Your task to perform on an android device: Empty the shopping cart on walmart.com. Image 0: 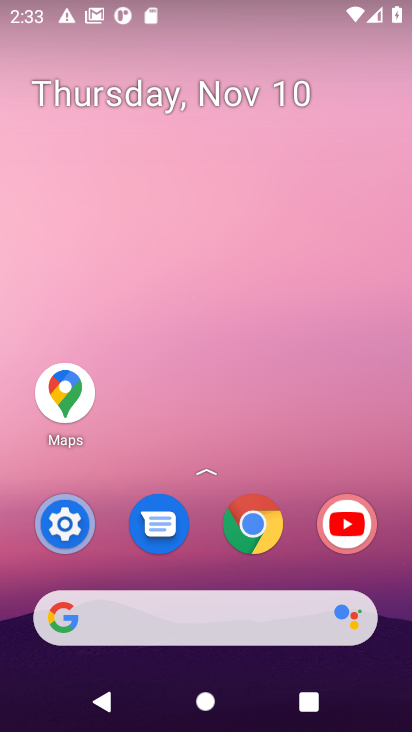
Step 0: click (263, 534)
Your task to perform on an android device: Empty the shopping cart on walmart.com. Image 1: 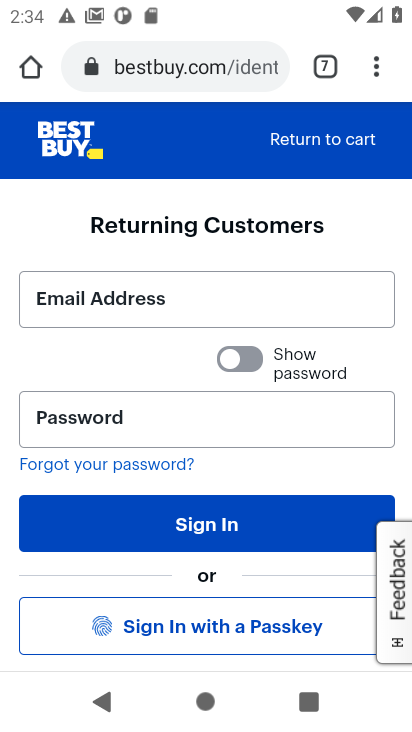
Step 1: click (327, 68)
Your task to perform on an android device: Empty the shopping cart on walmart.com. Image 2: 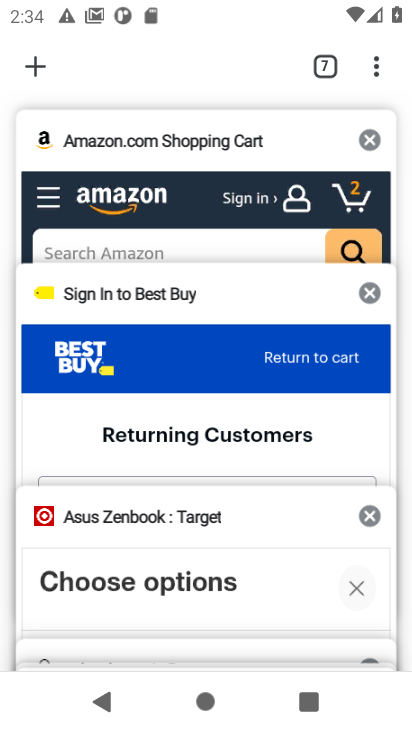
Step 2: drag from (120, 664) to (148, 396)
Your task to perform on an android device: Empty the shopping cart on walmart.com. Image 3: 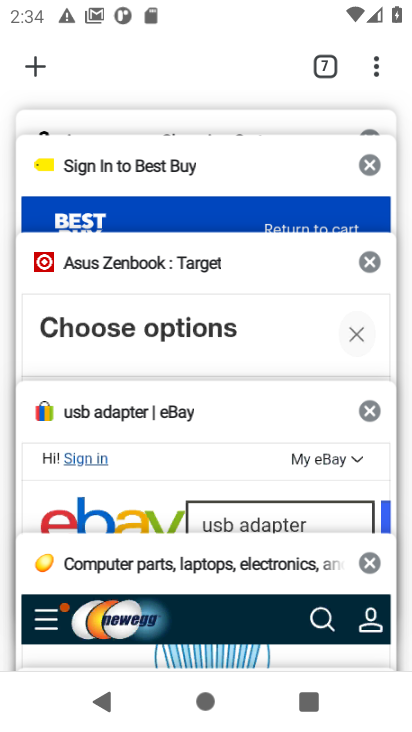
Step 3: drag from (158, 597) to (178, 408)
Your task to perform on an android device: Empty the shopping cart on walmart.com. Image 4: 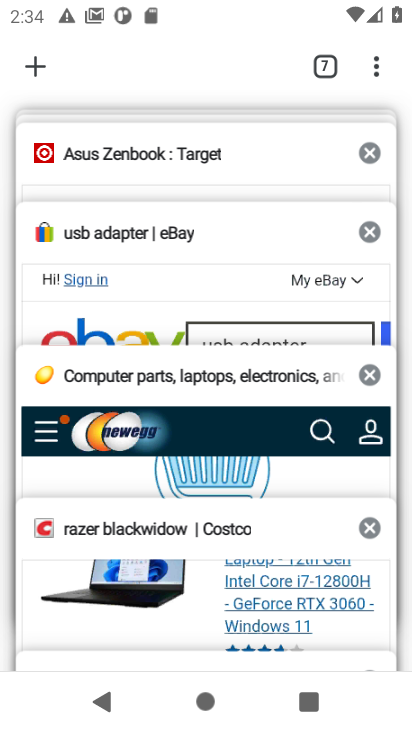
Step 4: drag from (138, 608) to (158, 543)
Your task to perform on an android device: Empty the shopping cart on walmart.com. Image 5: 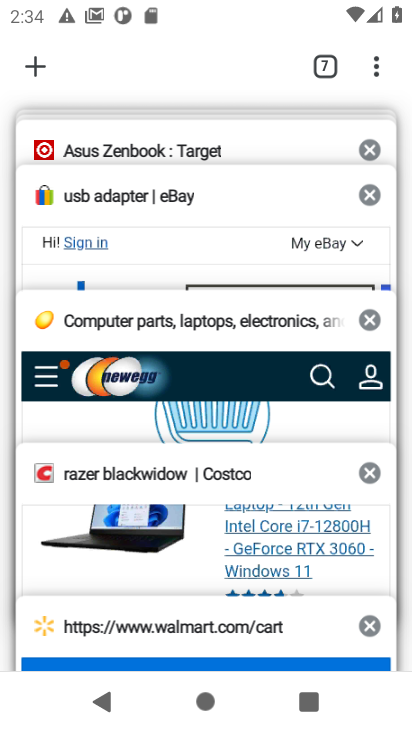
Step 5: click (154, 635)
Your task to perform on an android device: Empty the shopping cart on walmart.com. Image 6: 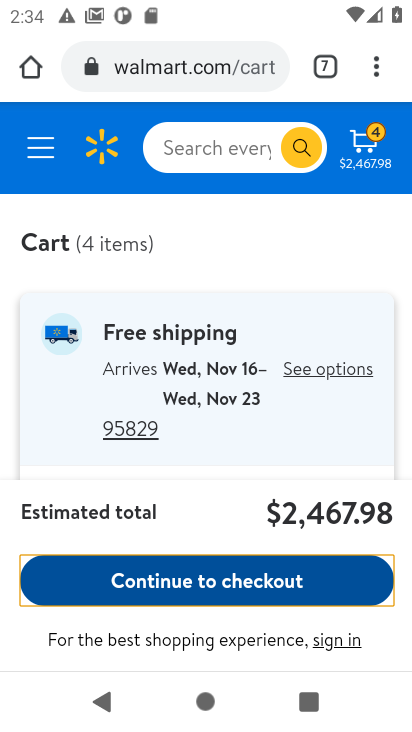
Step 6: drag from (257, 477) to (309, 243)
Your task to perform on an android device: Empty the shopping cart on walmart.com. Image 7: 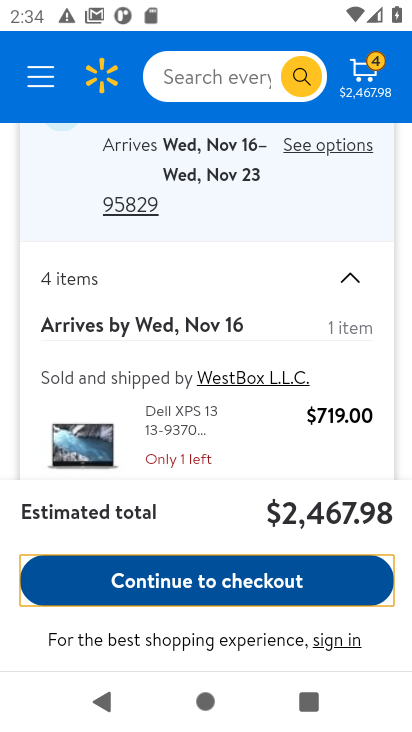
Step 7: drag from (242, 504) to (270, 269)
Your task to perform on an android device: Empty the shopping cart on walmart.com. Image 8: 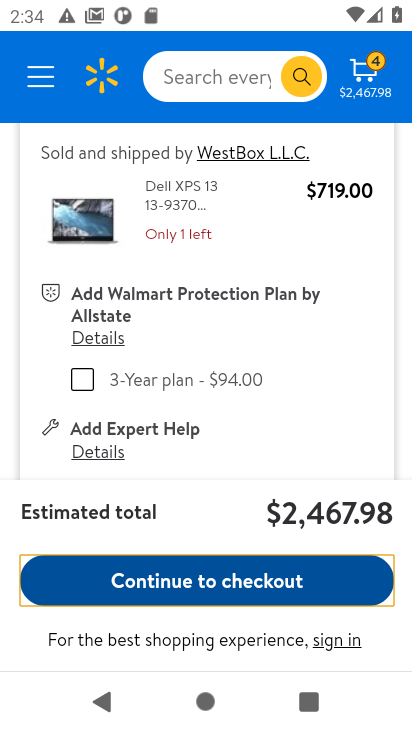
Step 8: click (185, 151)
Your task to perform on an android device: Empty the shopping cart on walmart.com. Image 9: 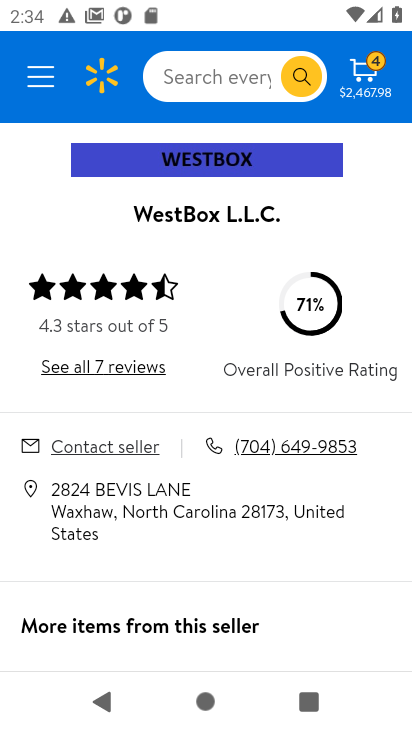
Step 9: click (364, 78)
Your task to perform on an android device: Empty the shopping cart on walmart.com. Image 10: 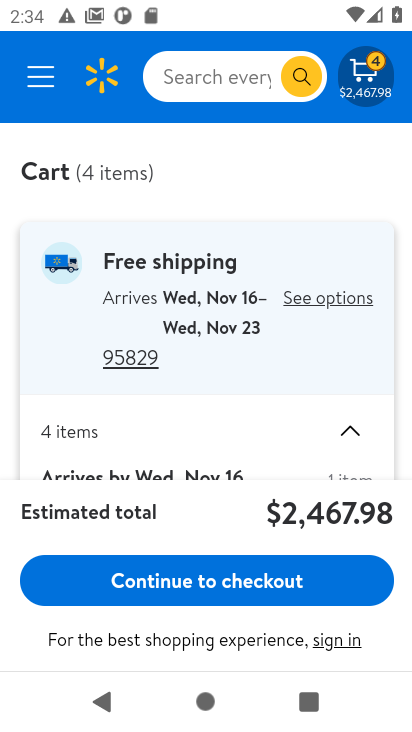
Step 10: drag from (203, 450) to (249, 291)
Your task to perform on an android device: Empty the shopping cart on walmart.com. Image 11: 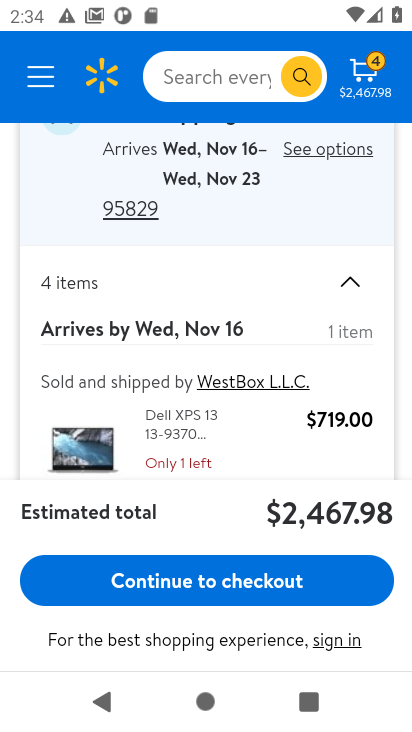
Step 11: drag from (131, 461) to (150, 174)
Your task to perform on an android device: Empty the shopping cart on walmart.com. Image 12: 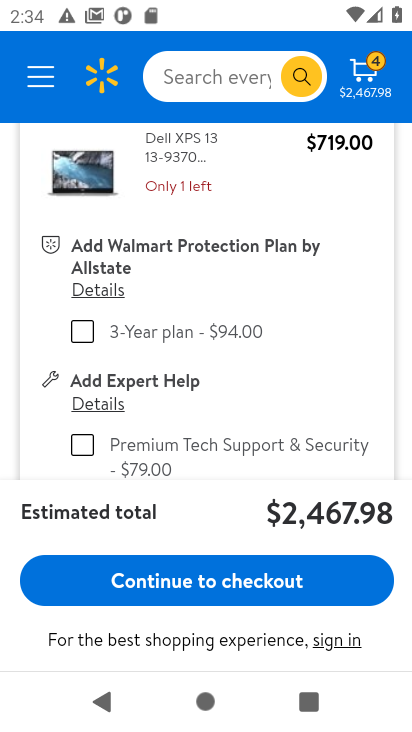
Step 12: drag from (271, 372) to (274, 212)
Your task to perform on an android device: Empty the shopping cart on walmart.com. Image 13: 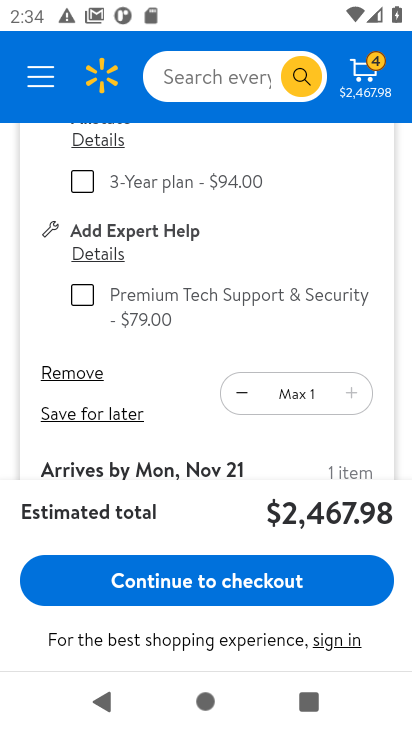
Step 13: click (77, 373)
Your task to perform on an android device: Empty the shopping cart on walmart.com. Image 14: 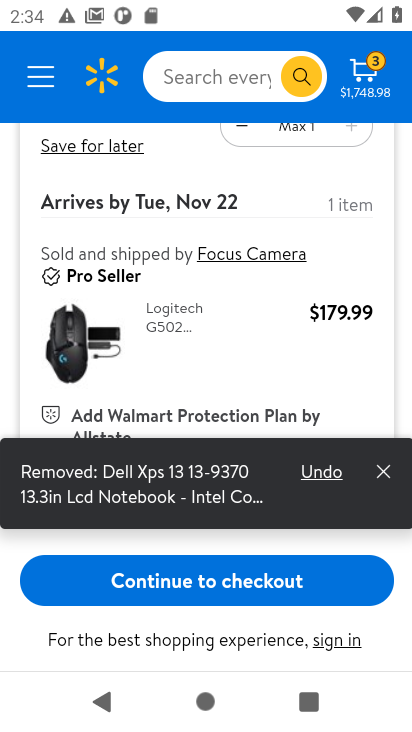
Step 14: drag from (258, 369) to (267, 234)
Your task to perform on an android device: Empty the shopping cart on walmart.com. Image 15: 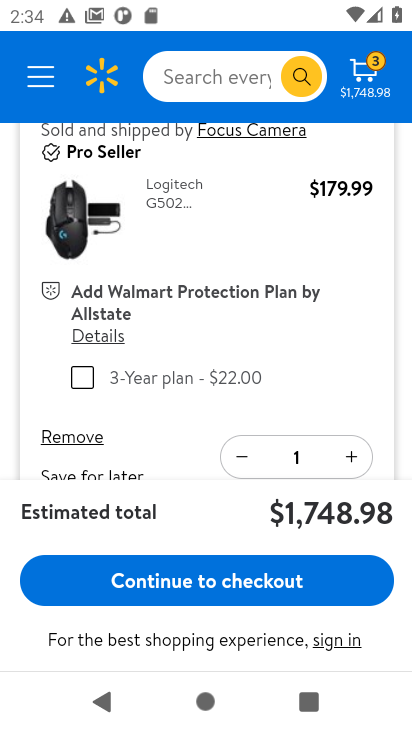
Step 15: click (86, 438)
Your task to perform on an android device: Empty the shopping cart on walmart.com. Image 16: 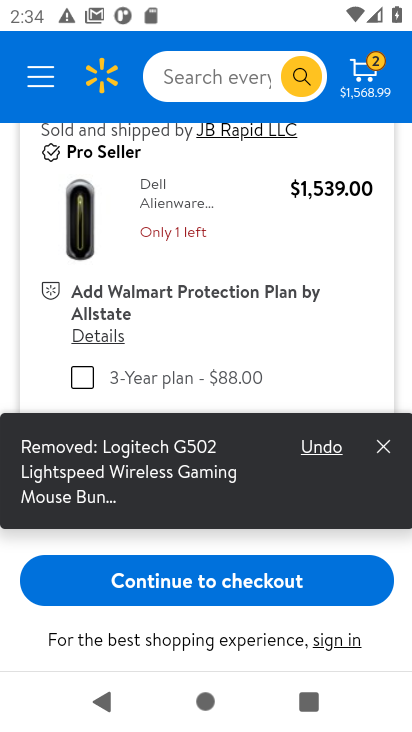
Step 16: drag from (312, 356) to (337, 213)
Your task to perform on an android device: Empty the shopping cart on walmart.com. Image 17: 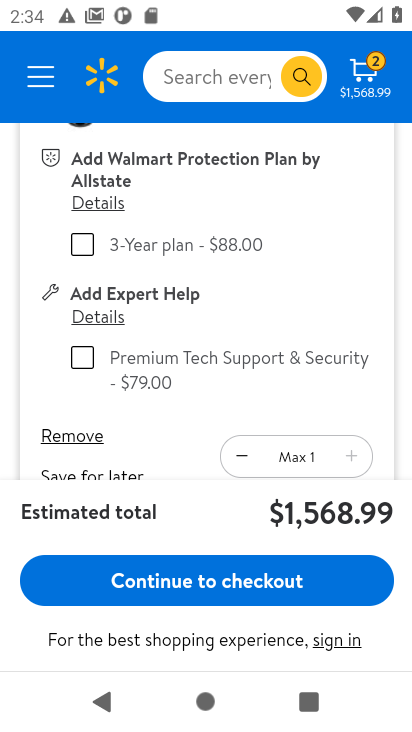
Step 17: drag from (311, 298) to (328, 181)
Your task to perform on an android device: Empty the shopping cart on walmart.com. Image 18: 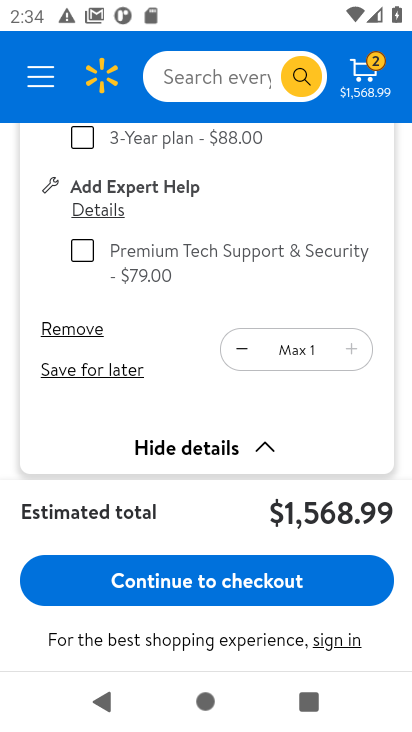
Step 18: click (83, 326)
Your task to perform on an android device: Empty the shopping cart on walmart.com. Image 19: 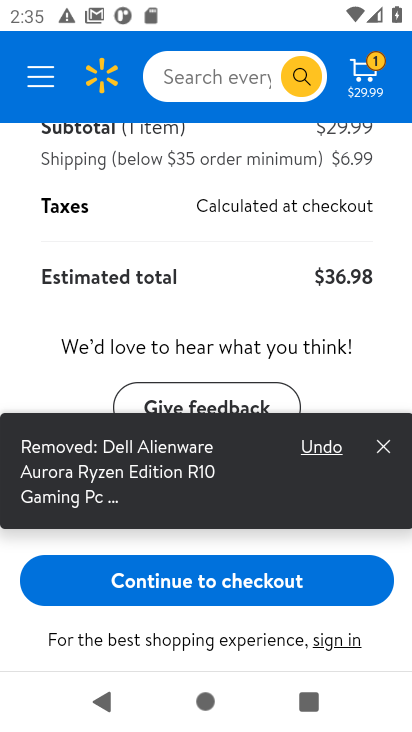
Step 19: drag from (246, 278) to (230, 420)
Your task to perform on an android device: Empty the shopping cart on walmart.com. Image 20: 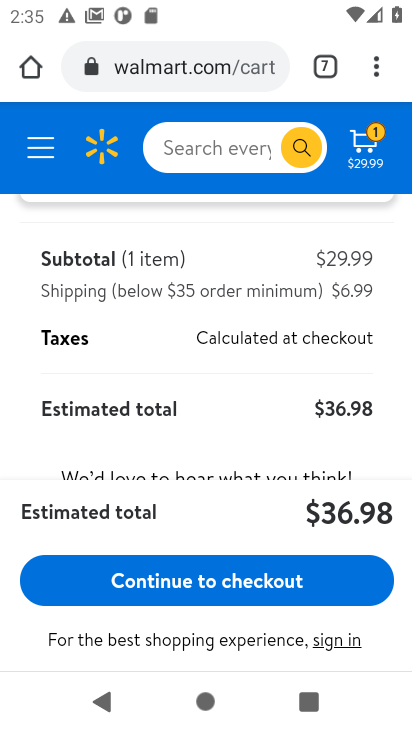
Step 20: drag from (229, 233) to (218, 375)
Your task to perform on an android device: Empty the shopping cart on walmart.com. Image 21: 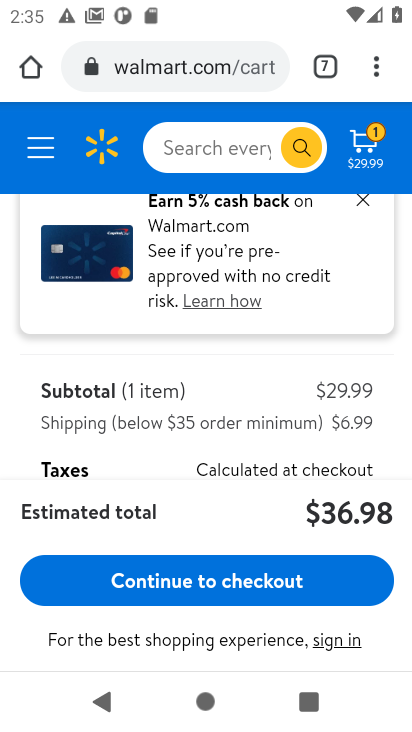
Step 21: drag from (341, 258) to (315, 370)
Your task to perform on an android device: Empty the shopping cart on walmart.com. Image 22: 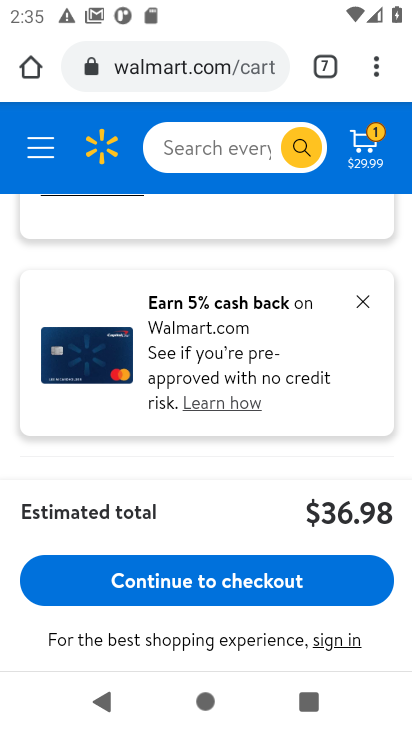
Step 22: drag from (315, 225) to (304, 369)
Your task to perform on an android device: Empty the shopping cart on walmart.com. Image 23: 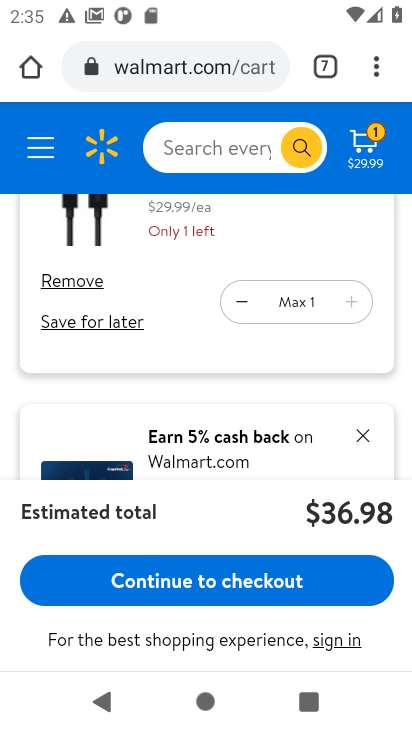
Step 23: click (80, 283)
Your task to perform on an android device: Empty the shopping cart on walmart.com. Image 24: 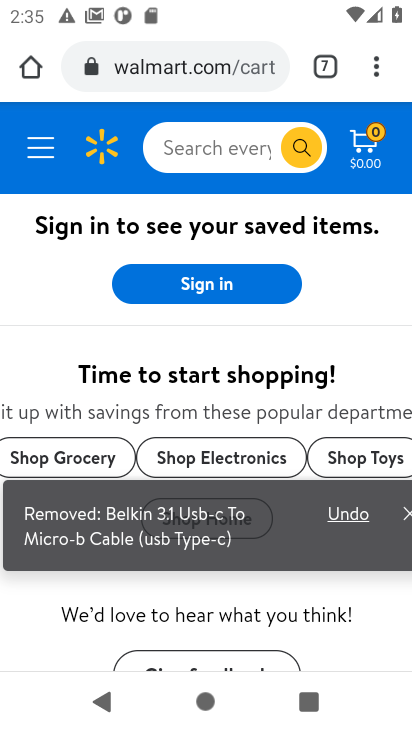
Step 24: task complete